Your task to perform on an android device: turn off wifi Image 0: 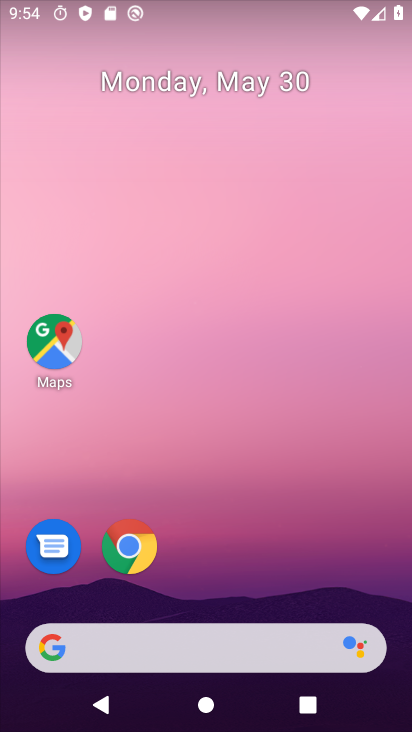
Step 0: drag from (284, 624) to (386, 22)
Your task to perform on an android device: turn off wifi Image 1: 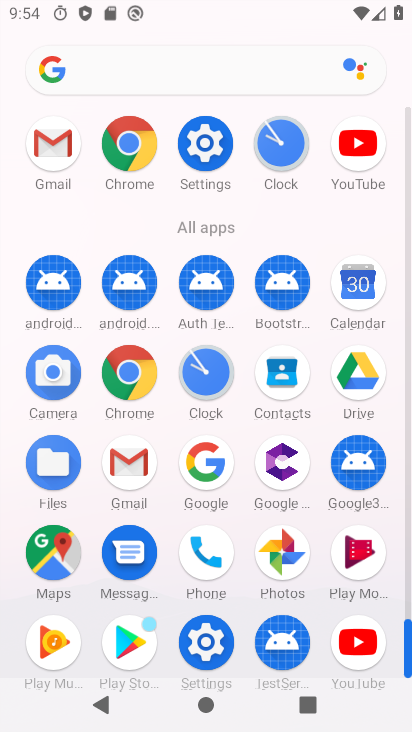
Step 1: click (200, 636)
Your task to perform on an android device: turn off wifi Image 2: 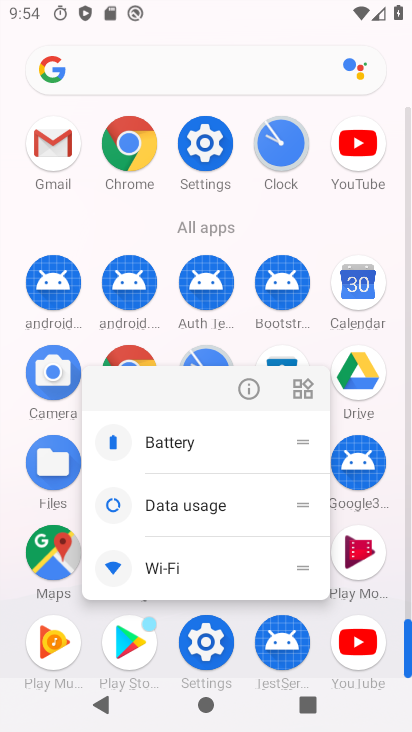
Step 2: click (206, 651)
Your task to perform on an android device: turn off wifi Image 3: 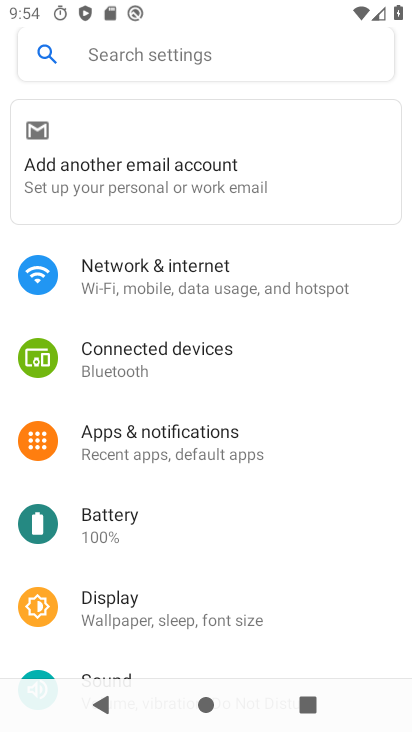
Step 3: click (255, 300)
Your task to perform on an android device: turn off wifi Image 4: 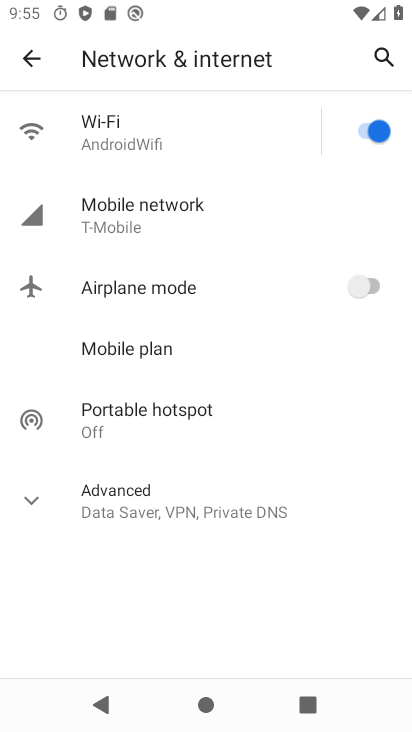
Step 4: click (364, 134)
Your task to perform on an android device: turn off wifi Image 5: 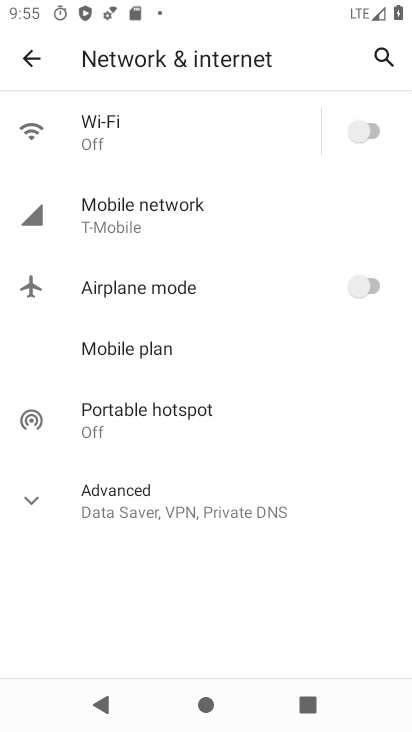
Step 5: task complete